Your task to perform on an android device: Open Google Maps and go to "Timeline" Image 0: 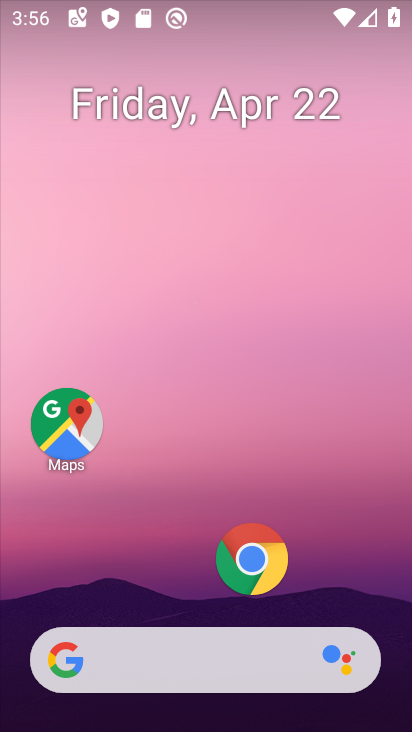
Step 0: click (76, 429)
Your task to perform on an android device: Open Google Maps and go to "Timeline" Image 1: 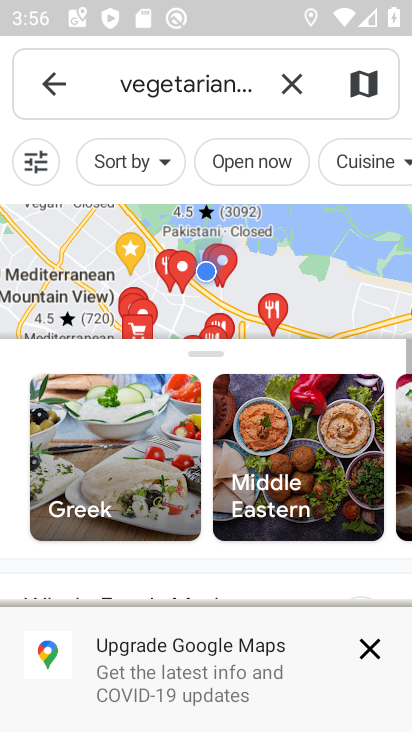
Step 1: click (48, 85)
Your task to perform on an android device: Open Google Maps and go to "Timeline" Image 2: 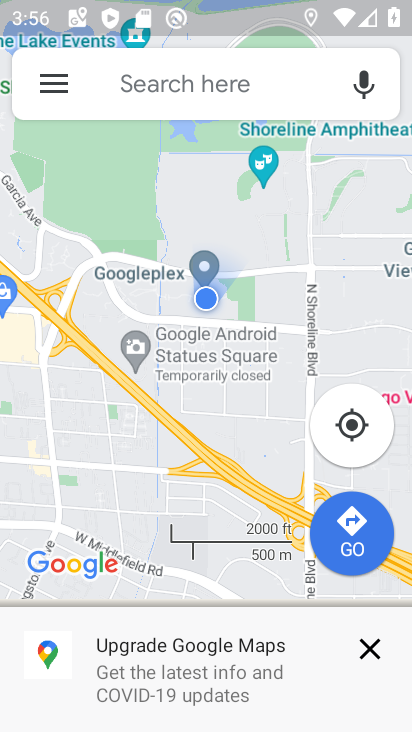
Step 2: click (48, 85)
Your task to perform on an android device: Open Google Maps and go to "Timeline" Image 3: 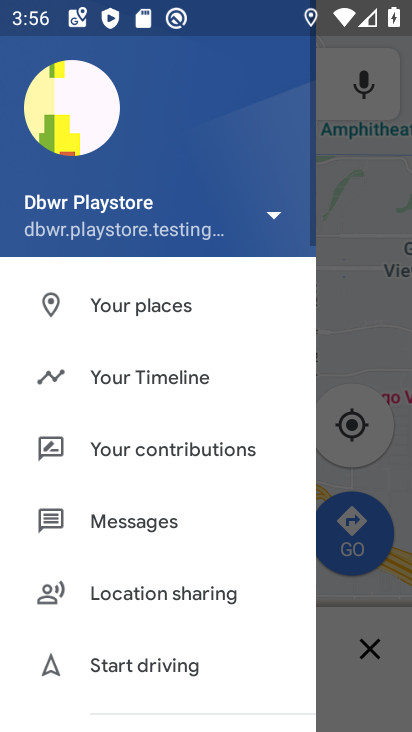
Step 3: click (154, 374)
Your task to perform on an android device: Open Google Maps and go to "Timeline" Image 4: 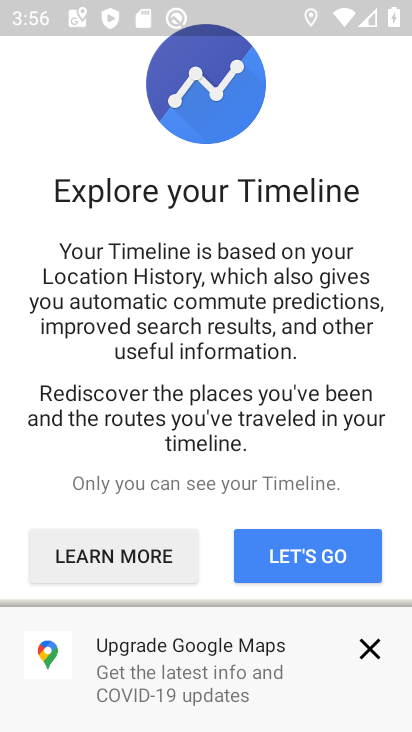
Step 4: click (373, 639)
Your task to perform on an android device: Open Google Maps and go to "Timeline" Image 5: 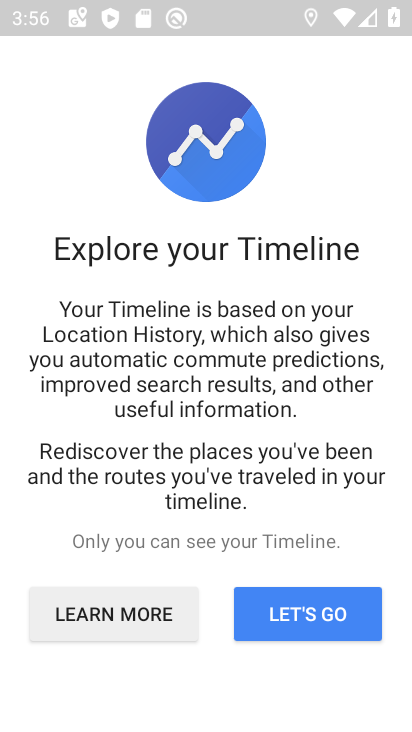
Step 5: click (274, 620)
Your task to perform on an android device: Open Google Maps and go to "Timeline" Image 6: 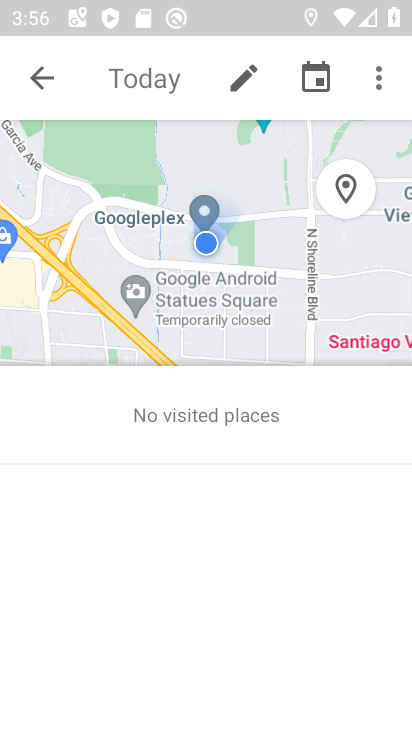
Step 6: task complete